Your task to perform on an android device: Do I have any events this weekend? Image 0: 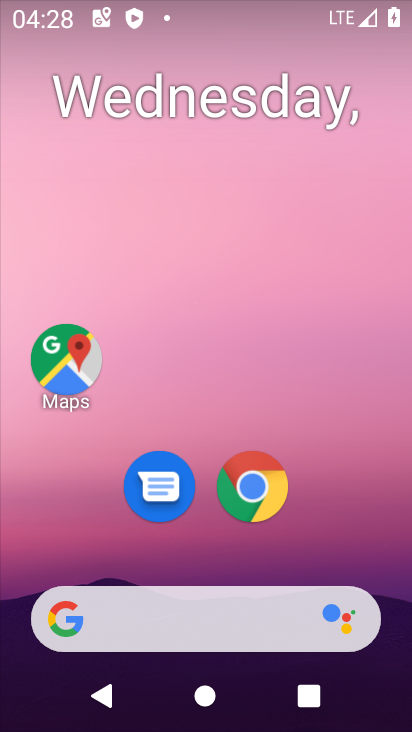
Step 0: drag from (211, 581) to (251, 106)
Your task to perform on an android device: Do I have any events this weekend? Image 1: 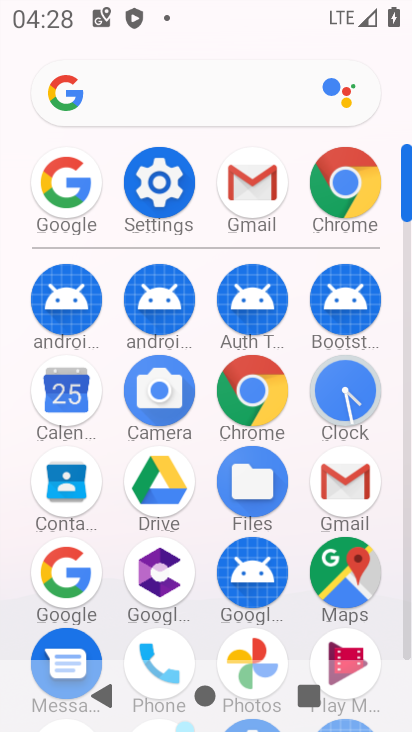
Step 1: click (60, 393)
Your task to perform on an android device: Do I have any events this weekend? Image 2: 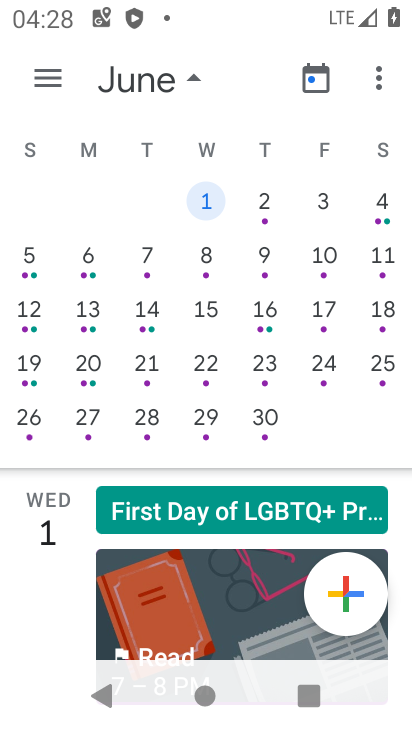
Step 2: drag from (35, 219) to (385, 189)
Your task to perform on an android device: Do I have any events this weekend? Image 3: 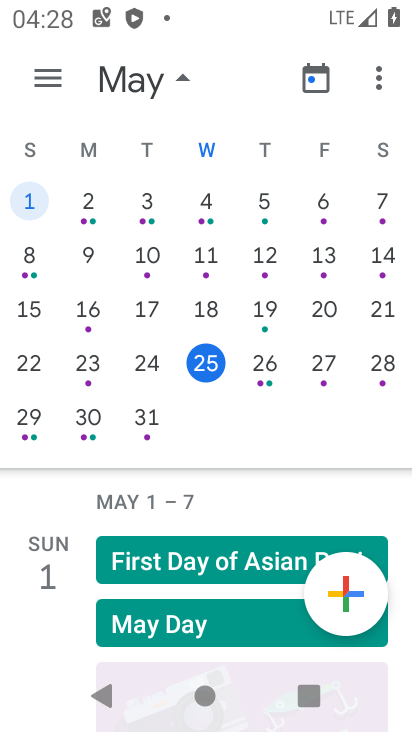
Step 3: click (16, 418)
Your task to perform on an android device: Do I have any events this weekend? Image 4: 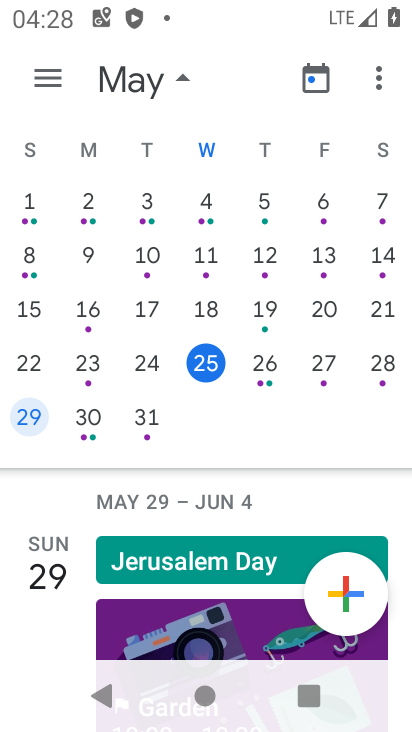
Step 4: click (187, 575)
Your task to perform on an android device: Do I have any events this weekend? Image 5: 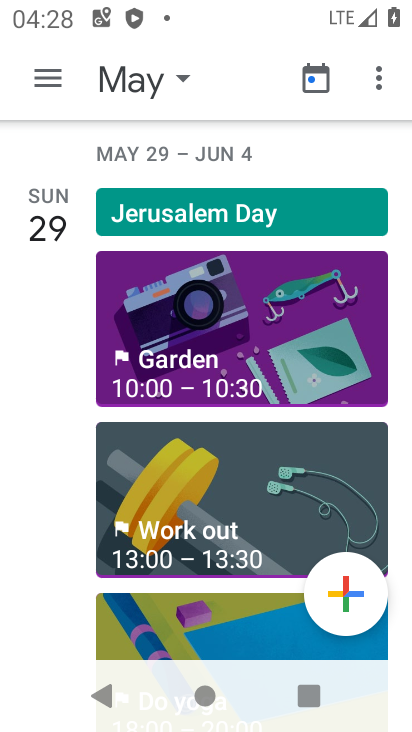
Step 5: task complete